Your task to perform on an android device: all mails in gmail Image 0: 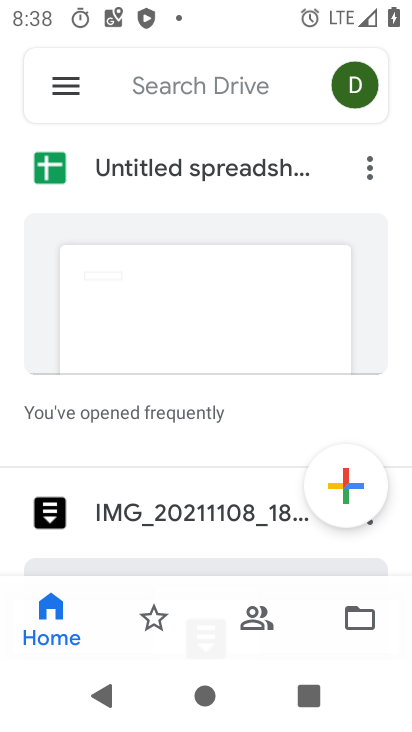
Step 0: press home button
Your task to perform on an android device: all mails in gmail Image 1: 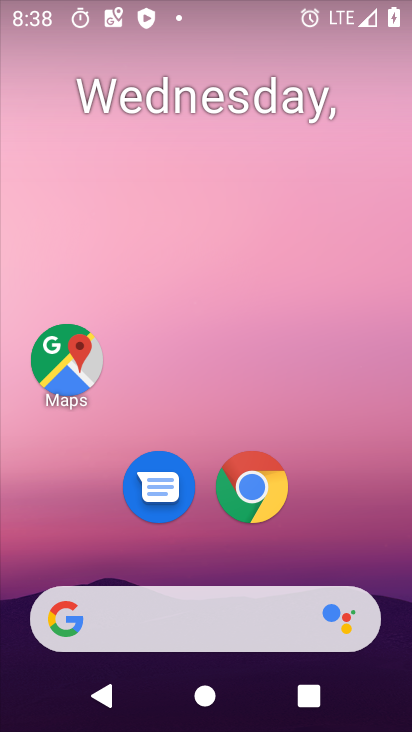
Step 1: drag from (344, 574) to (345, 19)
Your task to perform on an android device: all mails in gmail Image 2: 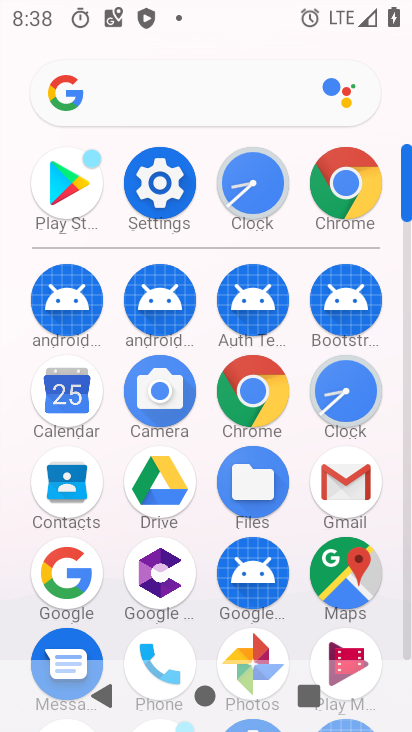
Step 2: click (335, 494)
Your task to perform on an android device: all mails in gmail Image 3: 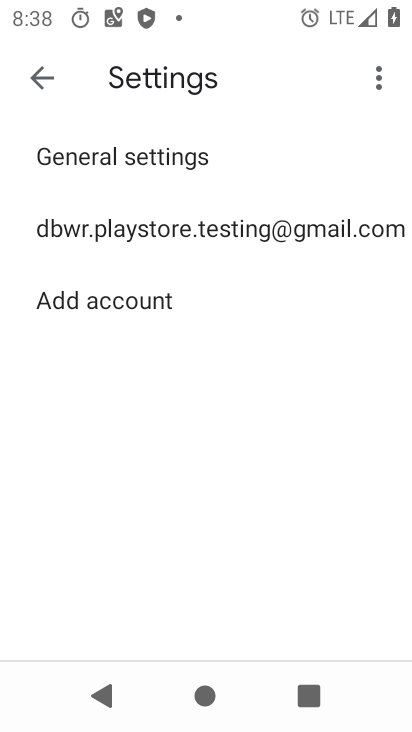
Step 3: click (43, 84)
Your task to perform on an android device: all mails in gmail Image 4: 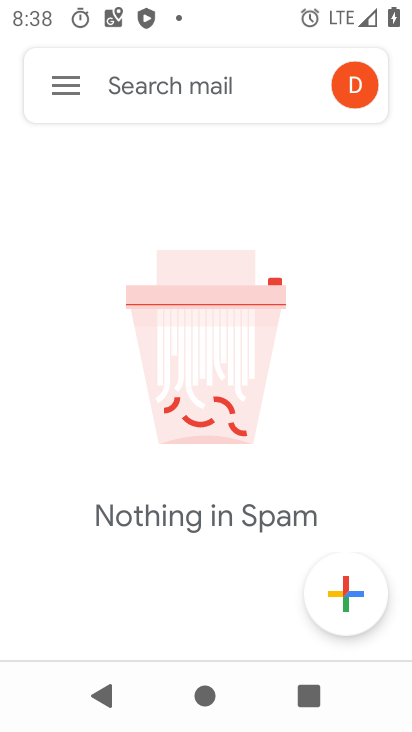
Step 4: click (64, 89)
Your task to perform on an android device: all mails in gmail Image 5: 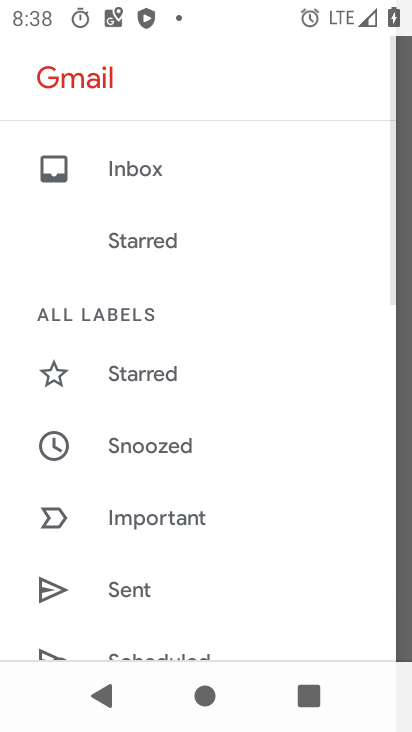
Step 5: drag from (237, 539) to (210, 135)
Your task to perform on an android device: all mails in gmail Image 6: 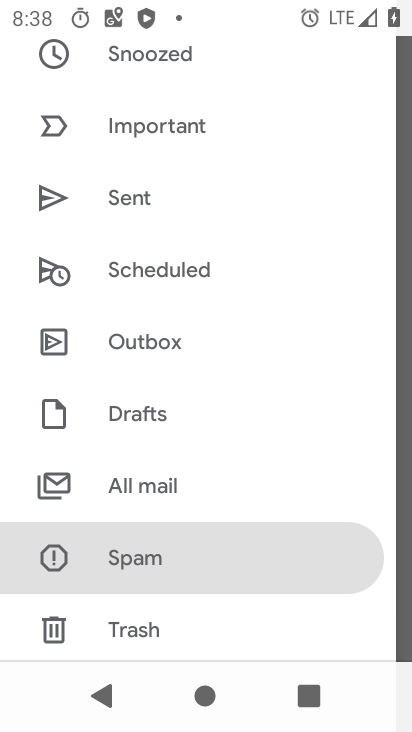
Step 6: click (148, 484)
Your task to perform on an android device: all mails in gmail Image 7: 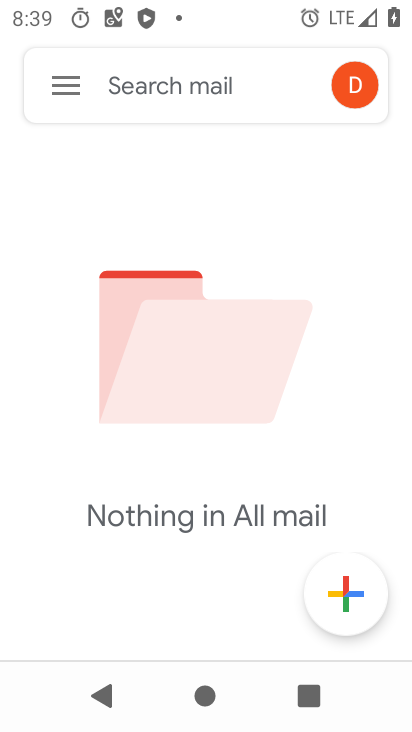
Step 7: task complete